Your task to perform on an android device: add a label to a message in the gmail app Image 0: 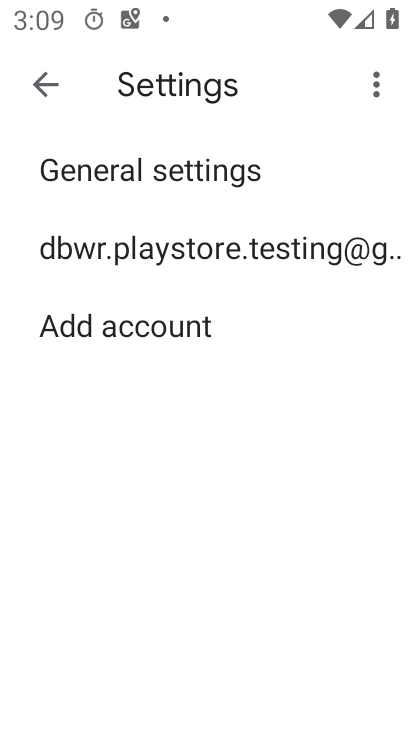
Step 0: press home button
Your task to perform on an android device: add a label to a message in the gmail app Image 1: 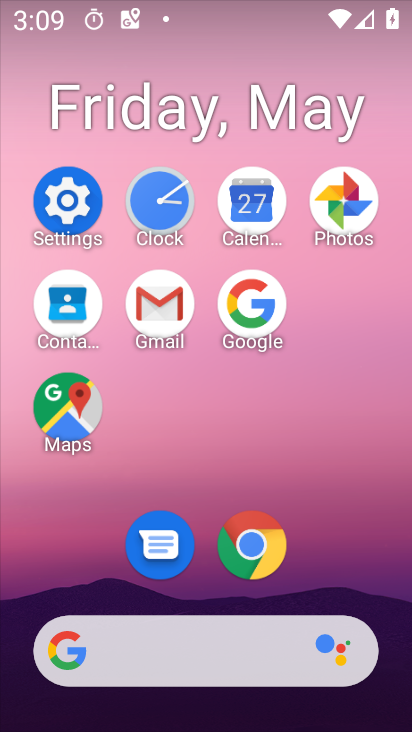
Step 1: click (181, 301)
Your task to perform on an android device: add a label to a message in the gmail app Image 2: 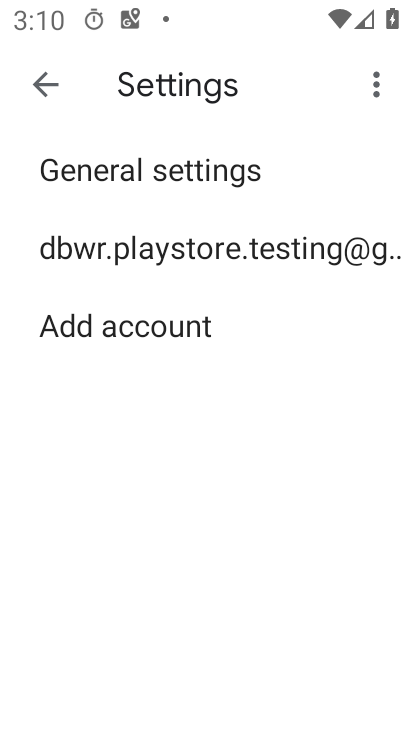
Step 2: click (32, 78)
Your task to perform on an android device: add a label to a message in the gmail app Image 3: 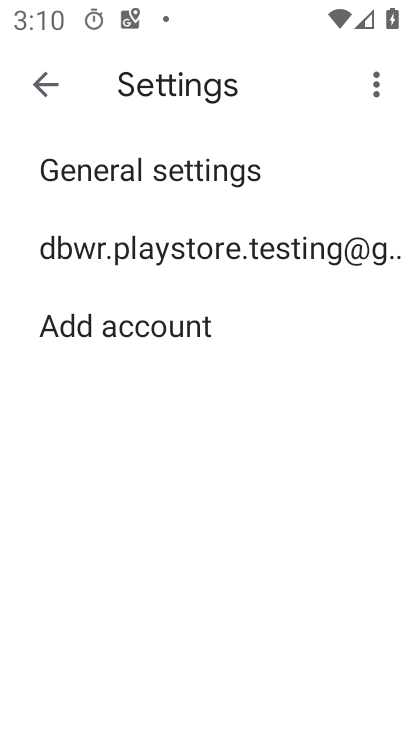
Step 3: click (59, 95)
Your task to perform on an android device: add a label to a message in the gmail app Image 4: 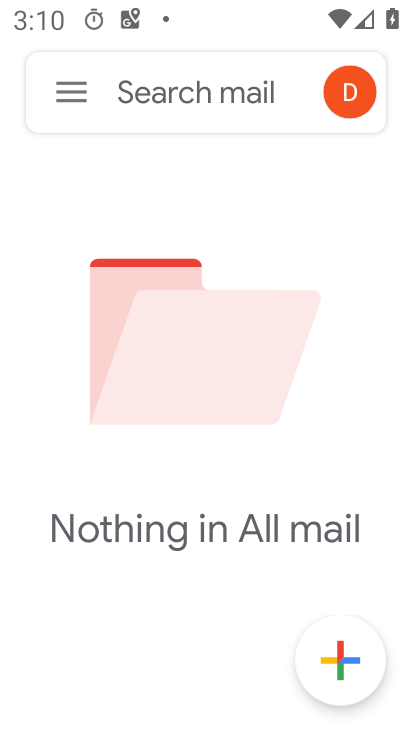
Step 4: click (66, 99)
Your task to perform on an android device: add a label to a message in the gmail app Image 5: 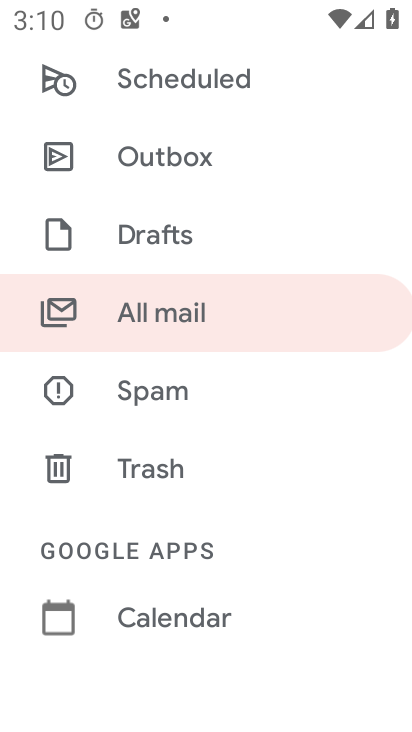
Step 5: click (307, 321)
Your task to perform on an android device: add a label to a message in the gmail app Image 6: 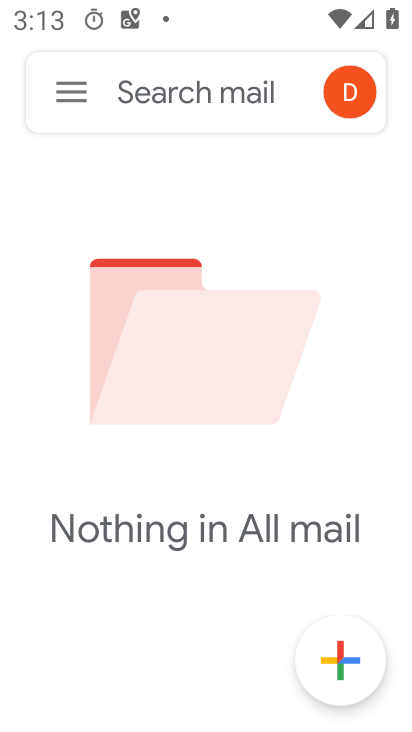
Step 6: task complete